Your task to perform on an android device: Show me recent news Image 0: 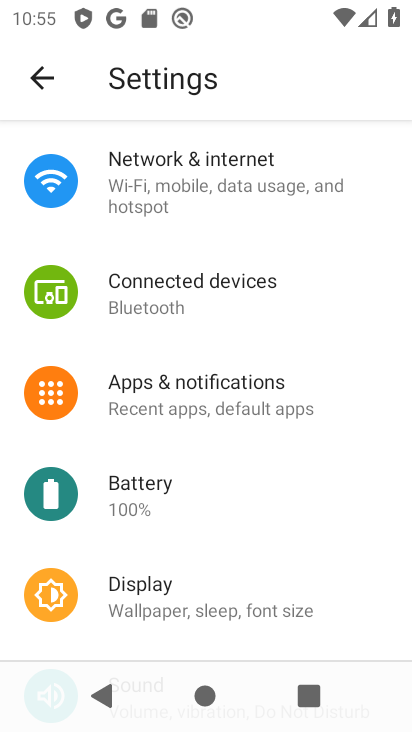
Step 0: press home button
Your task to perform on an android device: Show me recent news Image 1: 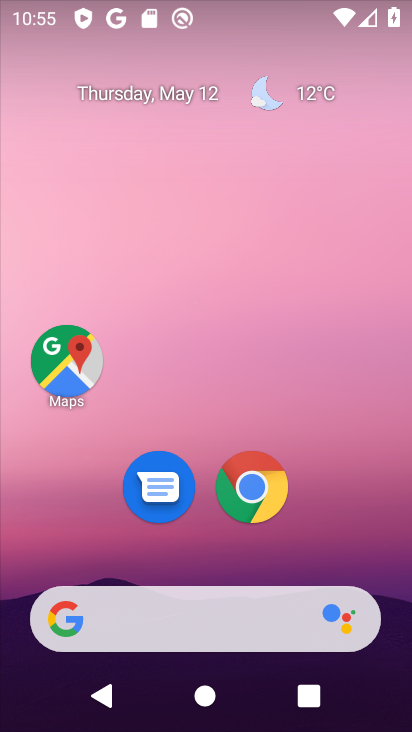
Step 1: click (108, 619)
Your task to perform on an android device: Show me recent news Image 2: 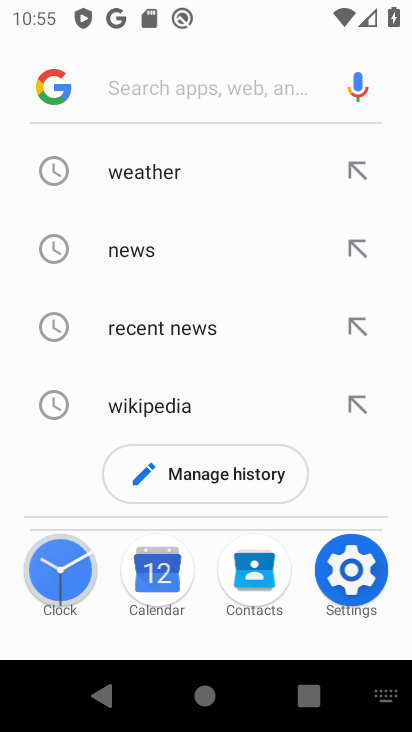
Step 2: click (130, 333)
Your task to perform on an android device: Show me recent news Image 3: 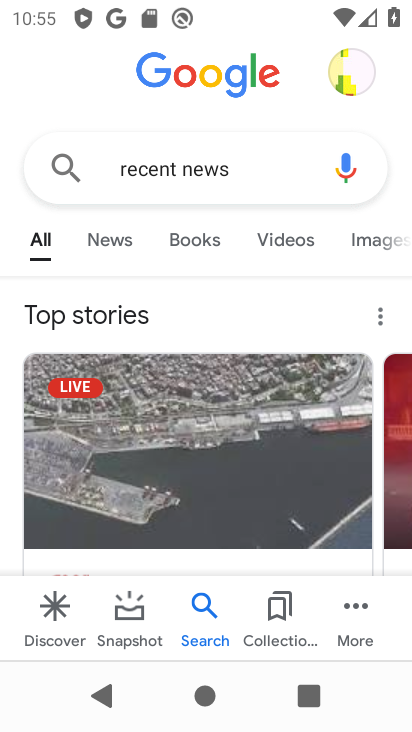
Step 3: click (107, 237)
Your task to perform on an android device: Show me recent news Image 4: 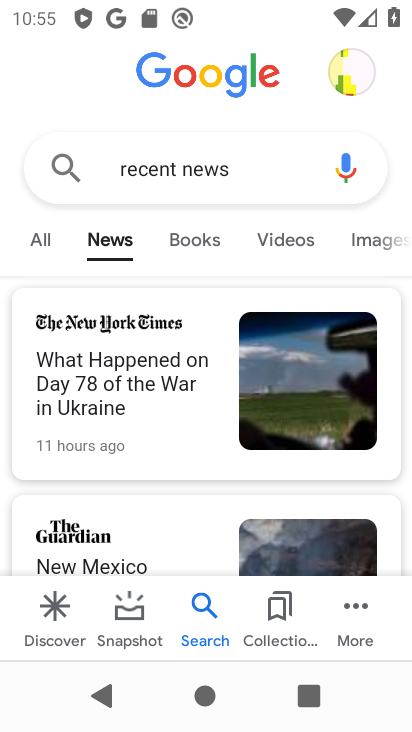
Step 4: drag from (132, 477) to (126, 161)
Your task to perform on an android device: Show me recent news Image 5: 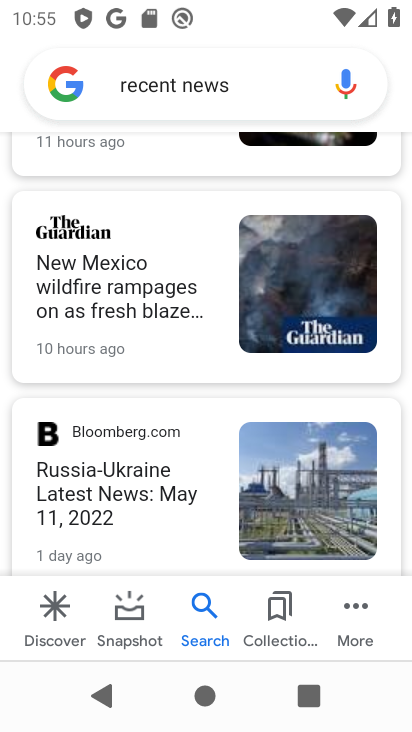
Step 5: drag from (112, 409) to (109, 88)
Your task to perform on an android device: Show me recent news Image 6: 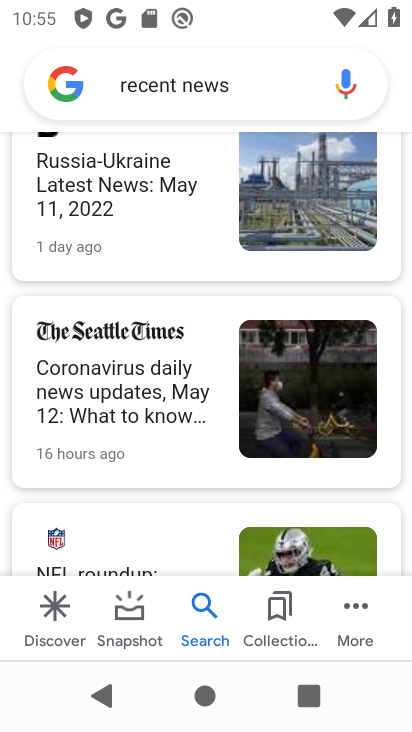
Step 6: drag from (93, 423) to (92, 90)
Your task to perform on an android device: Show me recent news Image 7: 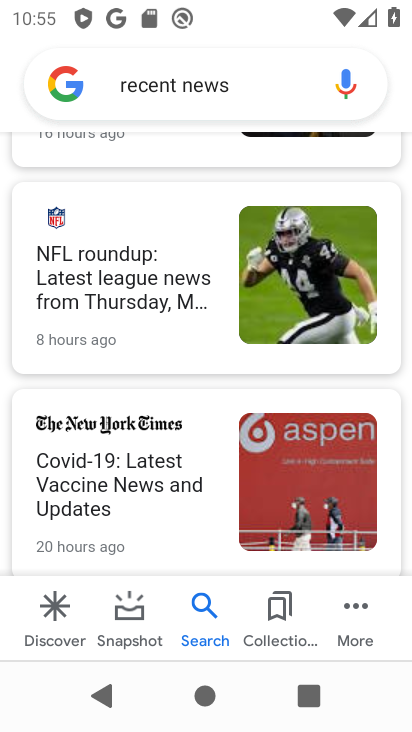
Step 7: drag from (97, 343) to (105, 120)
Your task to perform on an android device: Show me recent news Image 8: 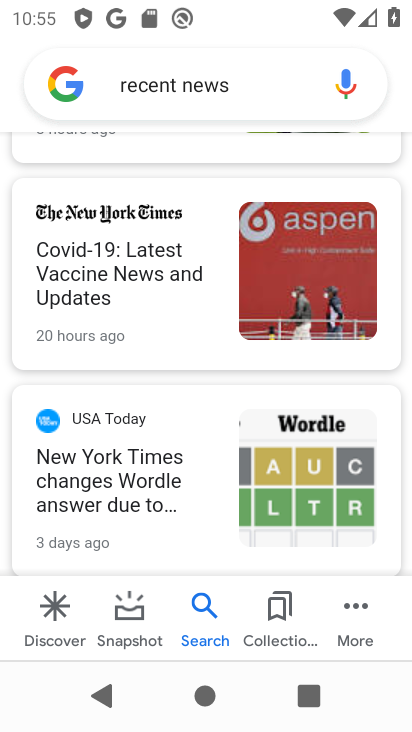
Step 8: drag from (96, 158) to (93, 386)
Your task to perform on an android device: Show me recent news Image 9: 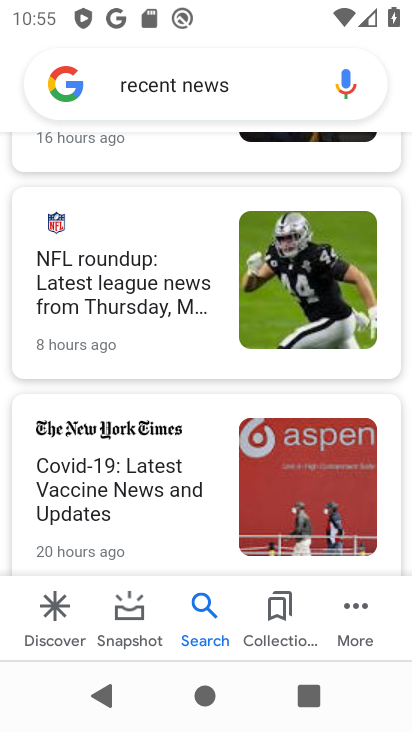
Step 9: click (79, 282)
Your task to perform on an android device: Show me recent news Image 10: 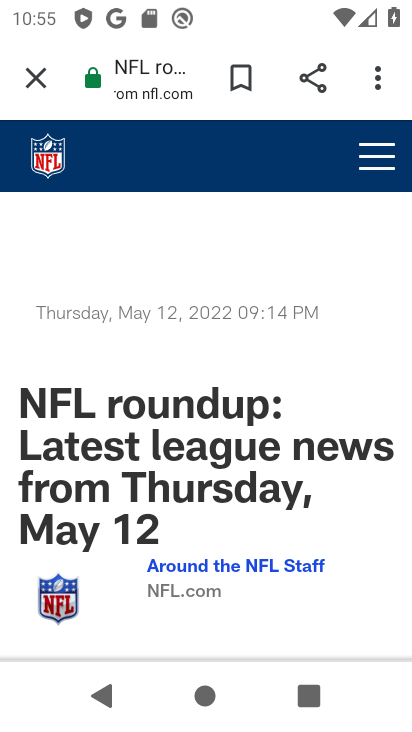
Step 10: task complete